Your task to perform on an android device: find photos in the google photos app Image 0: 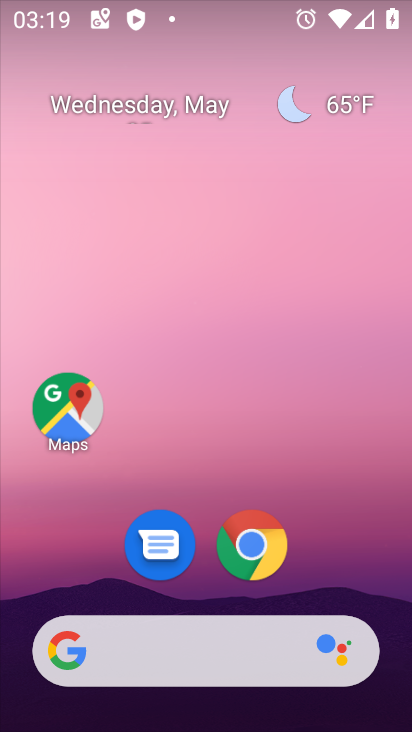
Step 0: drag from (349, 539) to (197, 24)
Your task to perform on an android device: find photos in the google photos app Image 1: 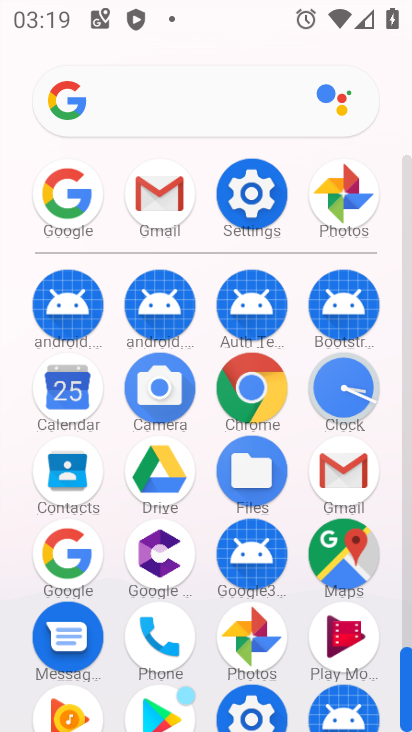
Step 1: click (252, 640)
Your task to perform on an android device: find photos in the google photos app Image 2: 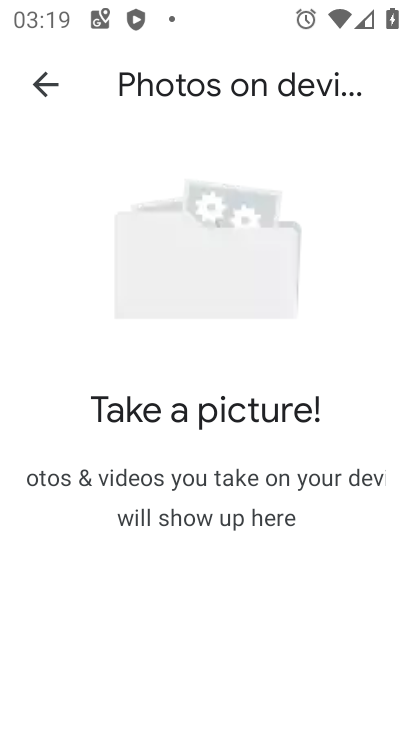
Step 2: click (40, 91)
Your task to perform on an android device: find photos in the google photos app Image 3: 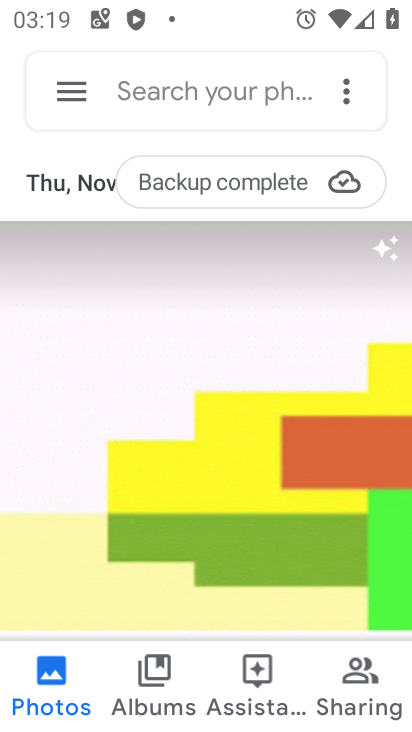
Step 3: click (54, 678)
Your task to perform on an android device: find photos in the google photos app Image 4: 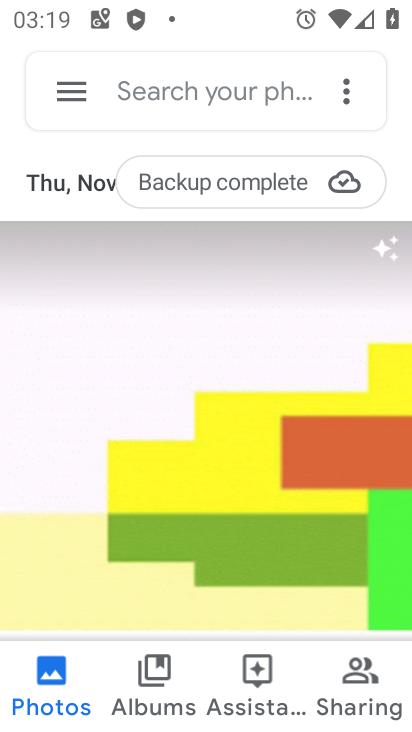
Step 4: task complete